Your task to perform on an android device: Show me popular videos on Youtube Image 0: 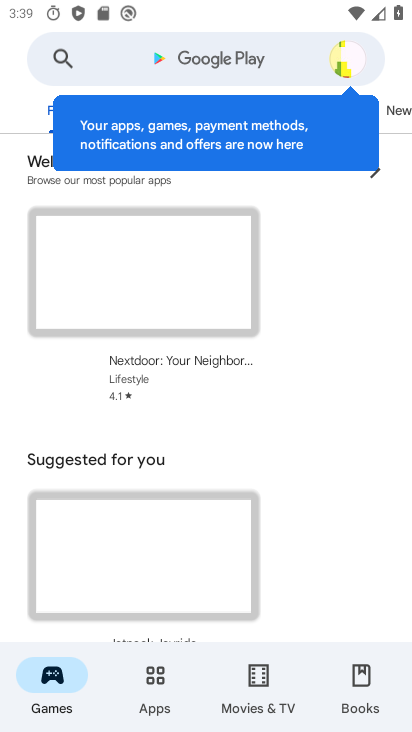
Step 0: press back button
Your task to perform on an android device: Show me popular videos on Youtube Image 1: 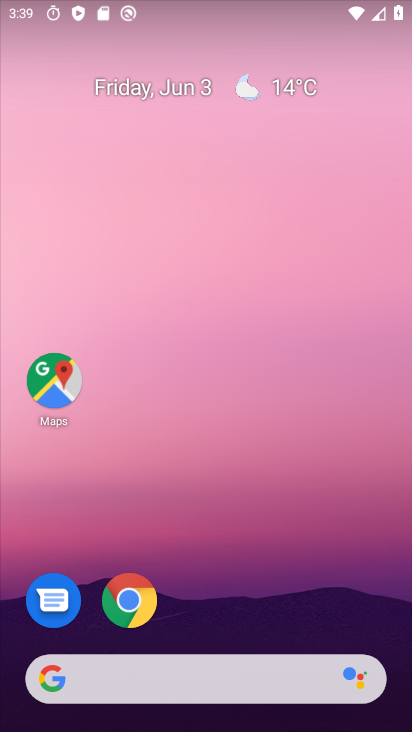
Step 1: drag from (269, 498) to (214, 9)
Your task to perform on an android device: Show me popular videos on Youtube Image 2: 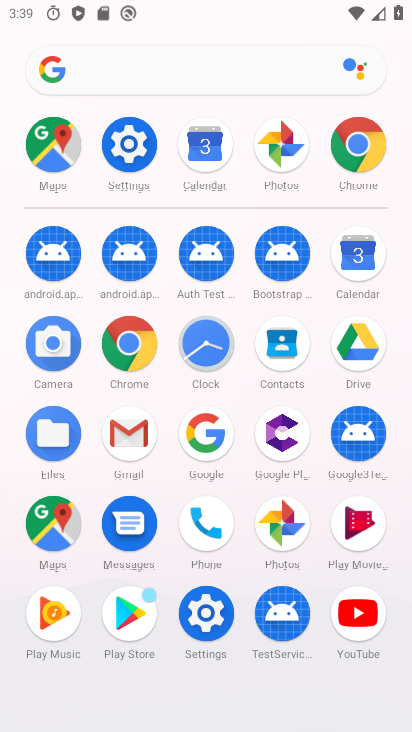
Step 2: click (359, 616)
Your task to perform on an android device: Show me popular videos on Youtube Image 3: 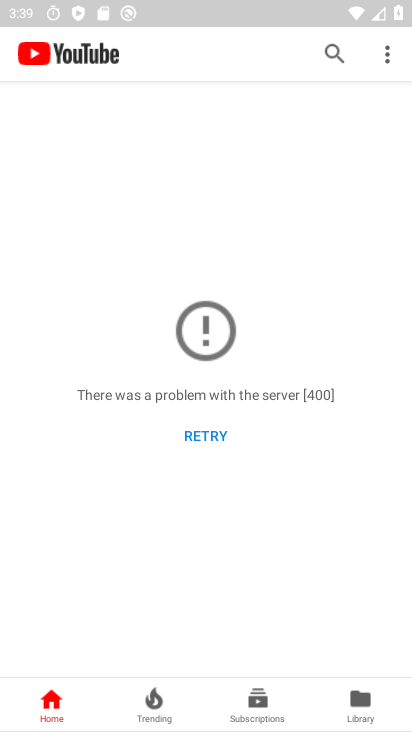
Step 3: click (355, 702)
Your task to perform on an android device: Show me popular videos on Youtube Image 4: 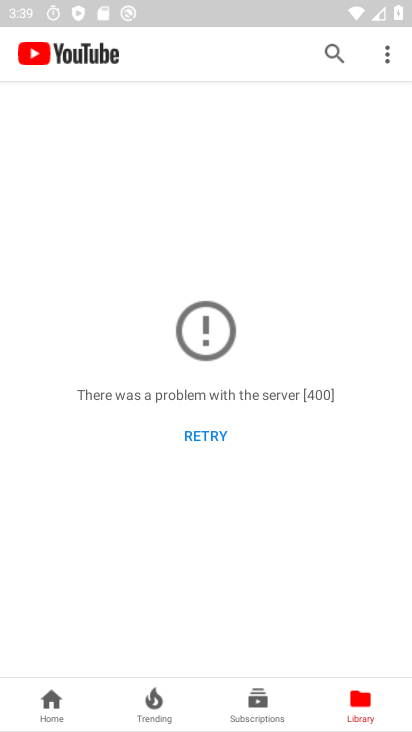
Step 4: click (54, 708)
Your task to perform on an android device: Show me popular videos on Youtube Image 5: 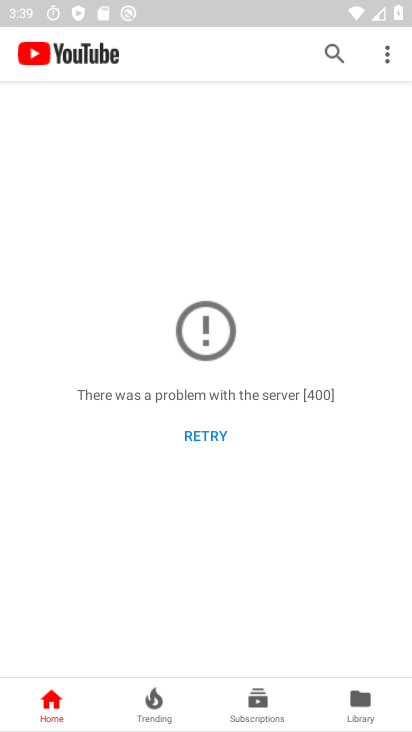
Step 5: click (361, 716)
Your task to perform on an android device: Show me popular videos on Youtube Image 6: 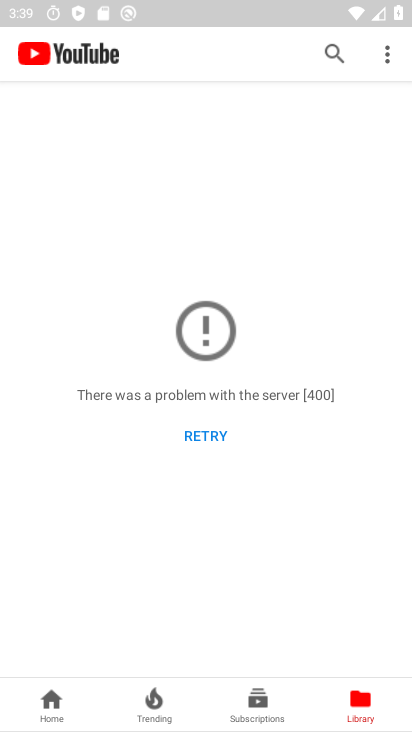
Step 6: task complete